Your task to perform on an android device: Go to ESPN.com Image 0: 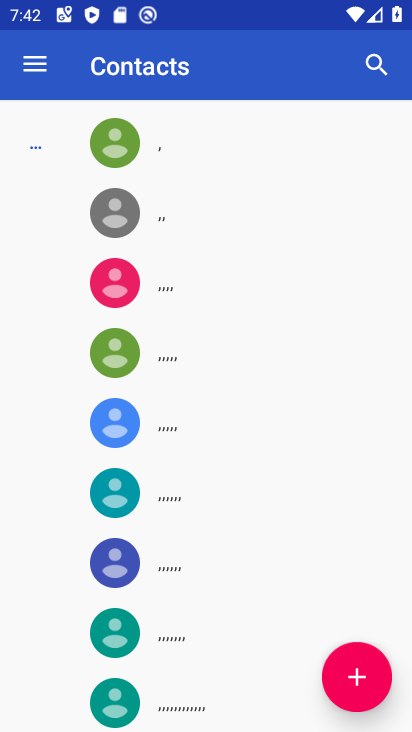
Step 0: press home button
Your task to perform on an android device: Go to ESPN.com Image 1: 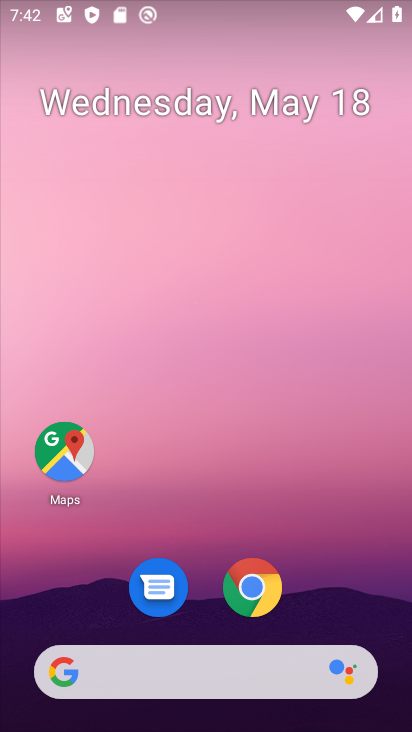
Step 1: click (253, 595)
Your task to perform on an android device: Go to ESPN.com Image 2: 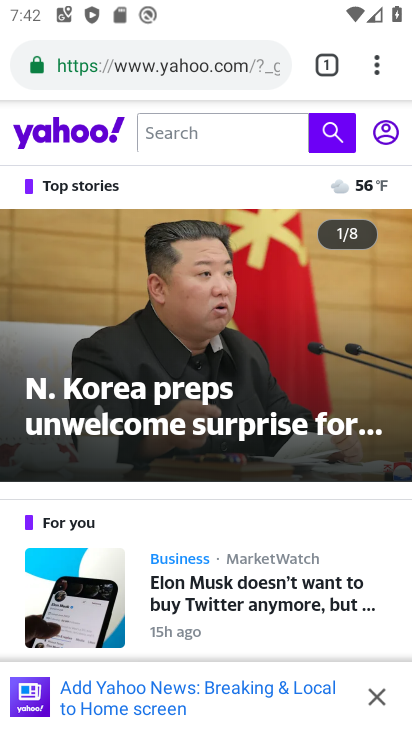
Step 2: click (333, 63)
Your task to perform on an android device: Go to ESPN.com Image 3: 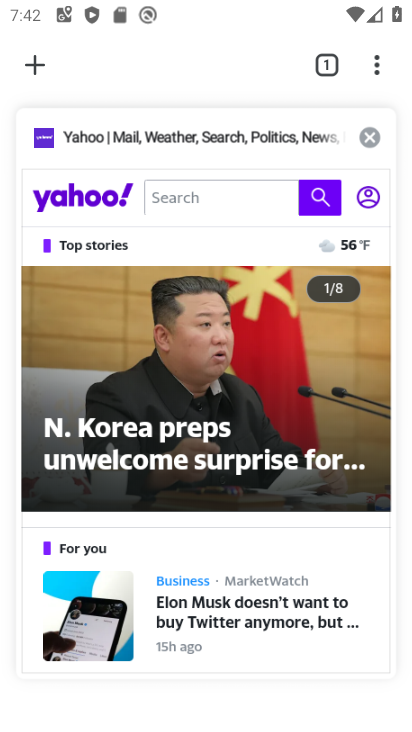
Step 3: click (32, 76)
Your task to perform on an android device: Go to ESPN.com Image 4: 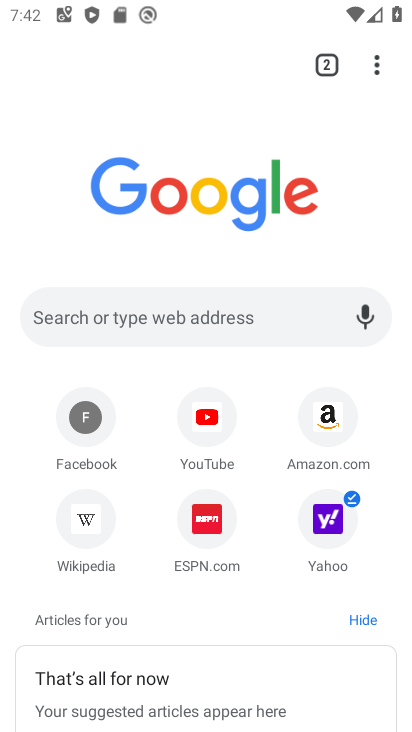
Step 4: click (209, 535)
Your task to perform on an android device: Go to ESPN.com Image 5: 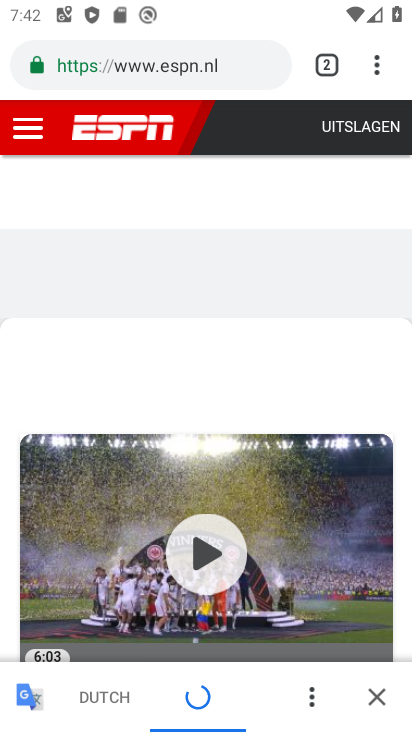
Step 5: task complete